Your task to perform on an android device: Open Google Chrome Image 0: 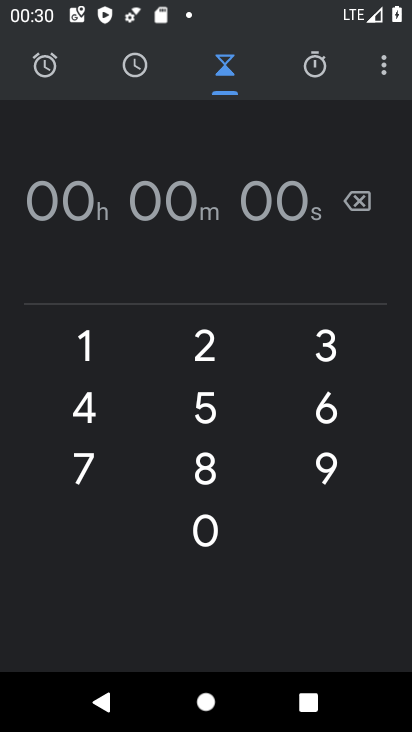
Step 0: press home button
Your task to perform on an android device: Open Google Chrome Image 1: 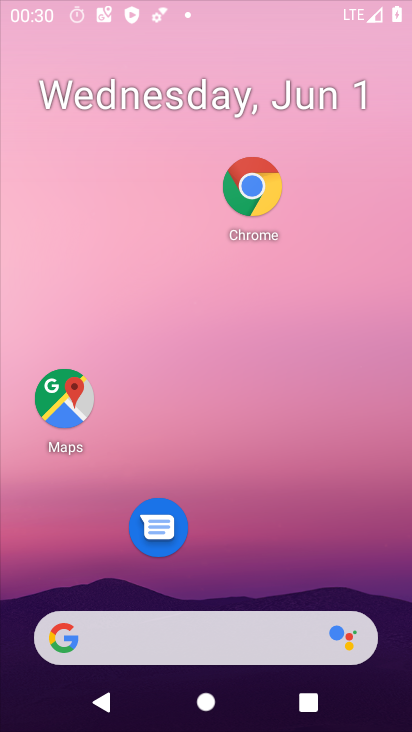
Step 1: drag from (234, 440) to (261, 3)
Your task to perform on an android device: Open Google Chrome Image 2: 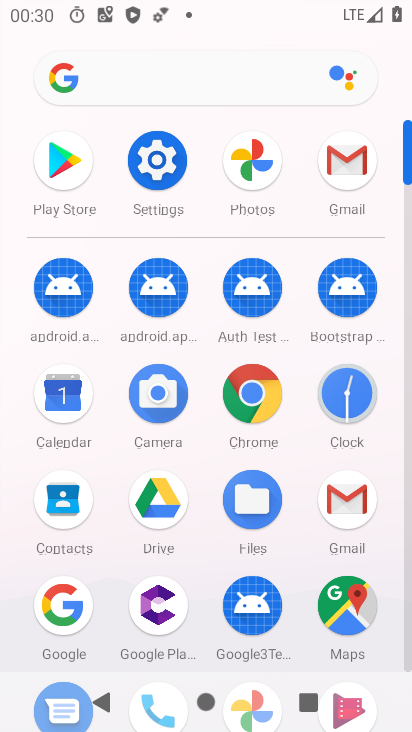
Step 2: drag from (222, 534) to (249, 11)
Your task to perform on an android device: Open Google Chrome Image 3: 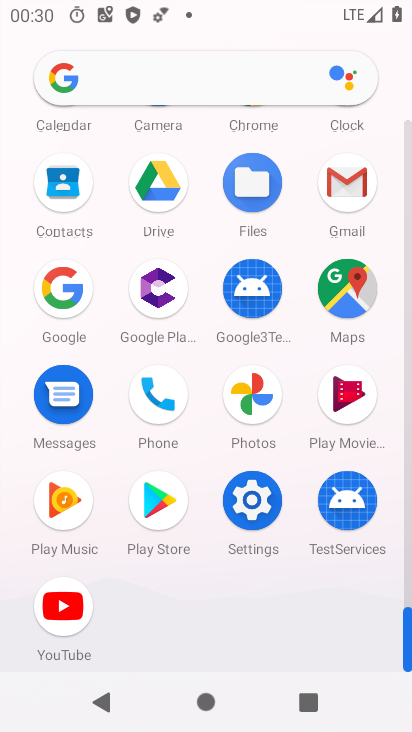
Step 3: click (217, 456)
Your task to perform on an android device: Open Google Chrome Image 4: 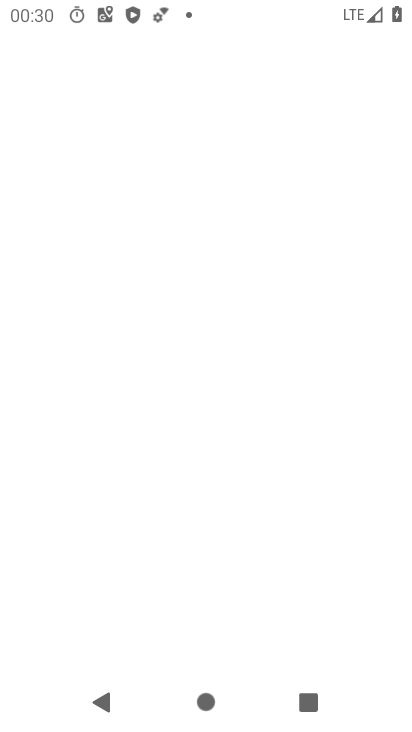
Step 4: press home button
Your task to perform on an android device: Open Google Chrome Image 5: 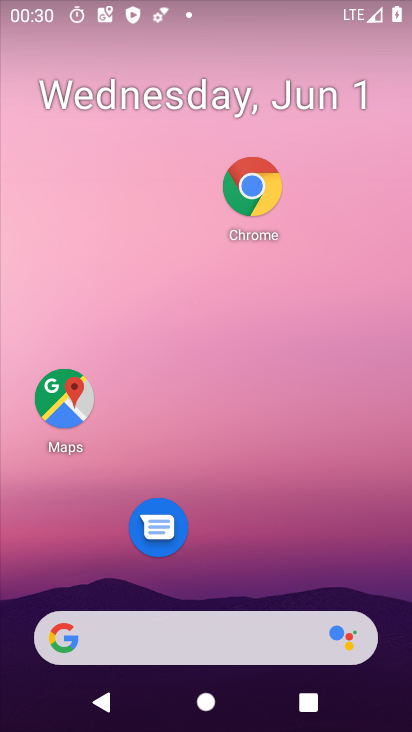
Step 5: click (247, 171)
Your task to perform on an android device: Open Google Chrome Image 6: 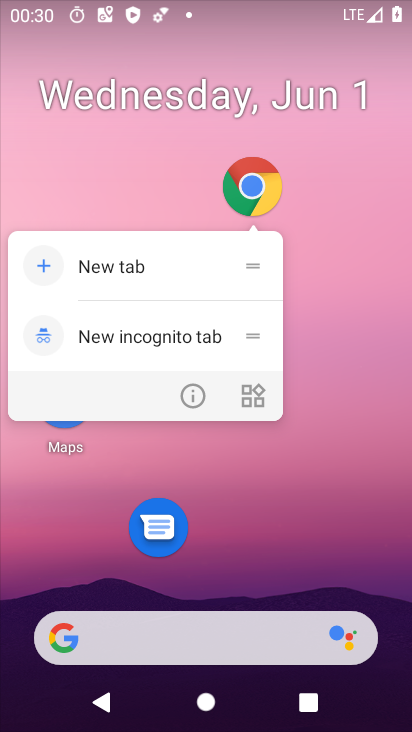
Step 6: click (194, 388)
Your task to perform on an android device: Open Google Chrome Image 7: 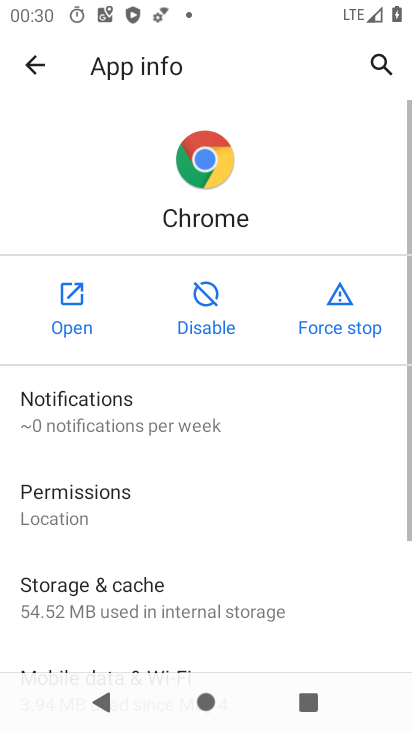
Step 7: click (92, 315)
Your task to perform on an android device: Open Google Chrome Image 8: 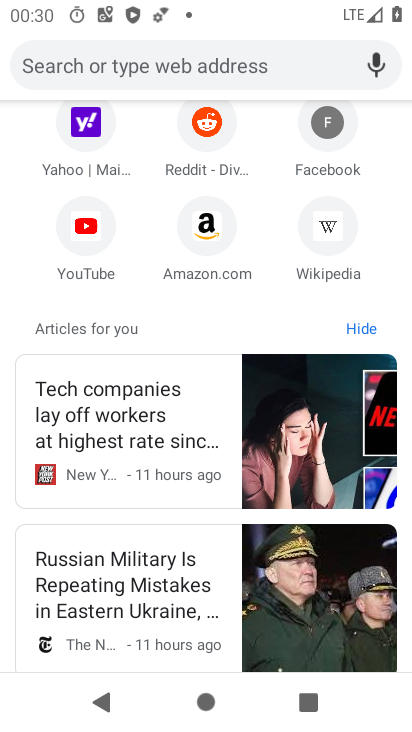
Step 8: task complete